Your task to perform on an android device: change the clock display to analog Image 0: 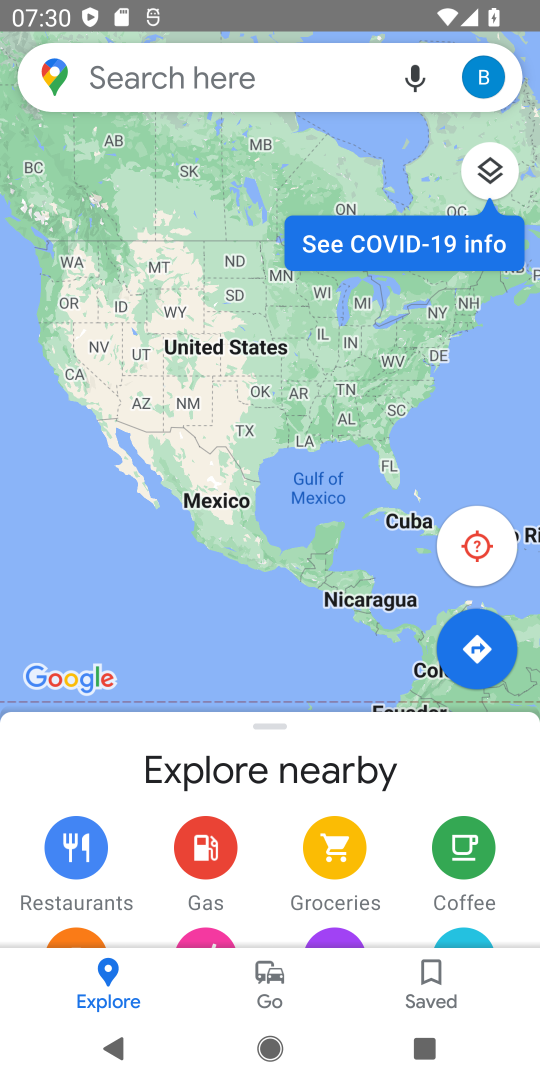
Step 0: press home button
Your task to perform on an android device: change the clock display to analog Image 1: 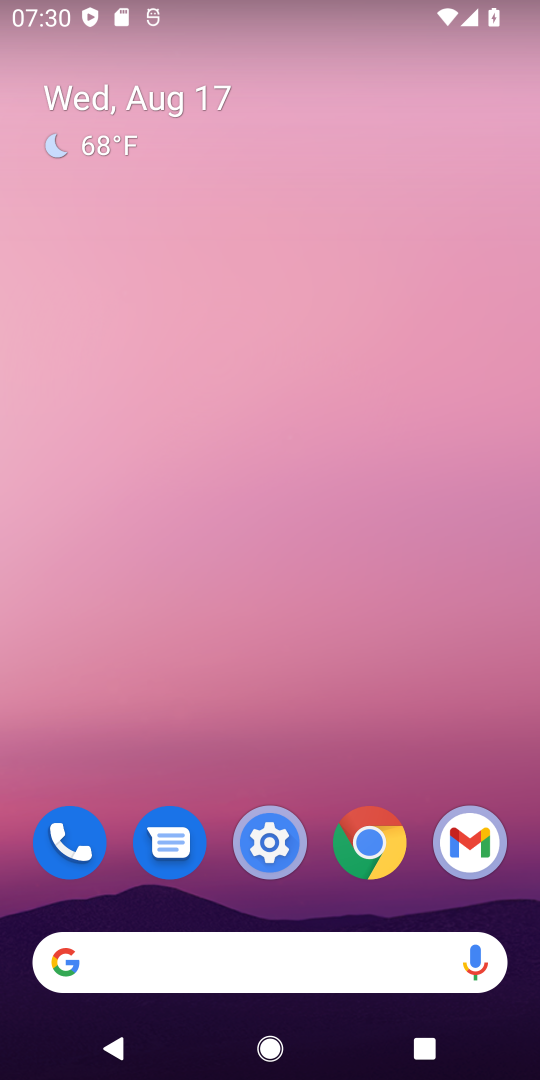
Step 1: drag from (319, 738) to (388, 0)
Your task to perform on an android device: change the clock display to analog Image 2: 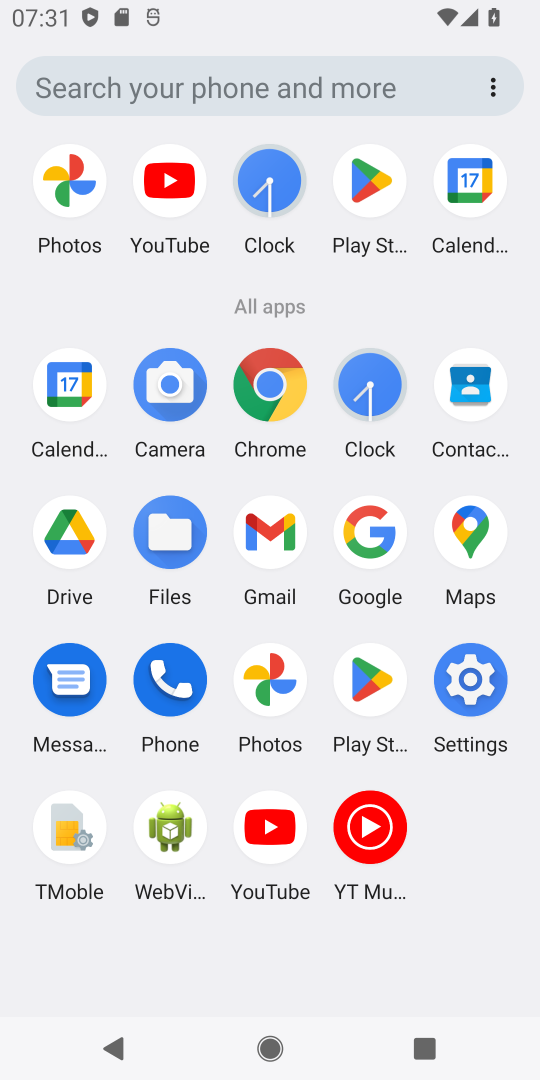
Step 2: click (277, 168)
Your task to perform on an android device: change the clock display to analog Image 3: 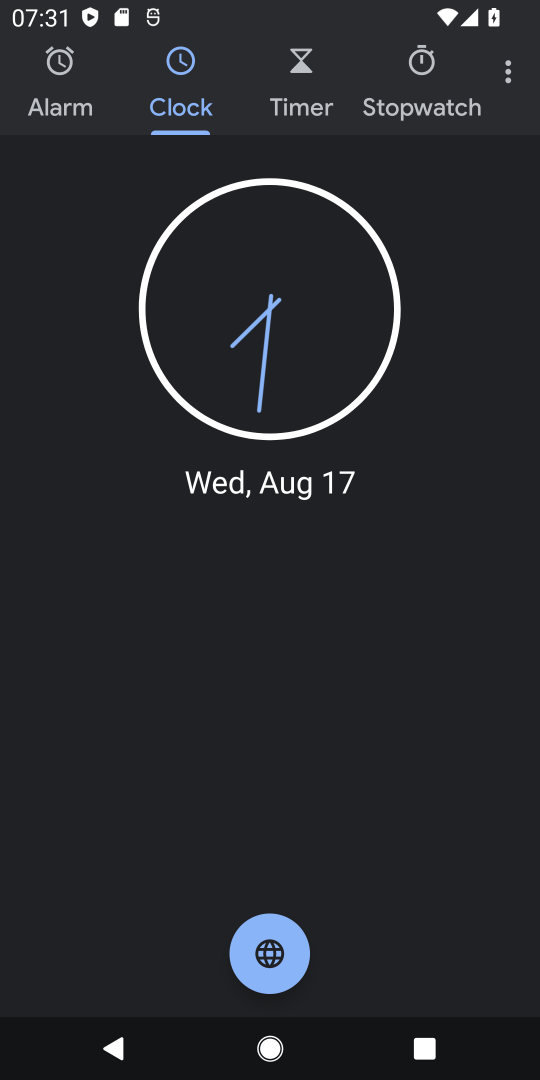
Step 3: task complete